Your task to perform on an android device: toggle location history Image 0: 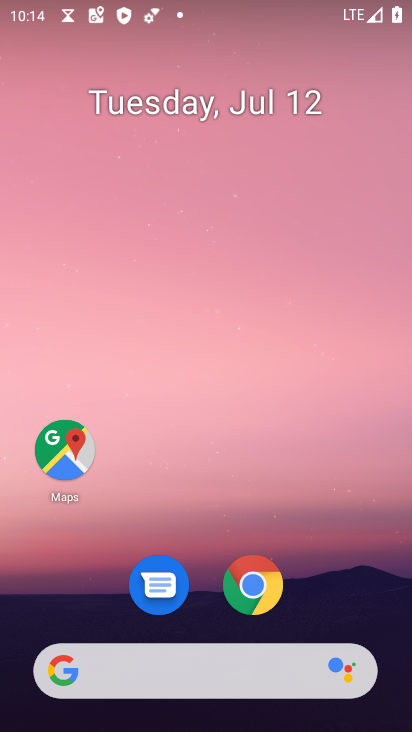
Step 0: click (65, 461)
Your task to perform on an android device: toggle location history Image 1: 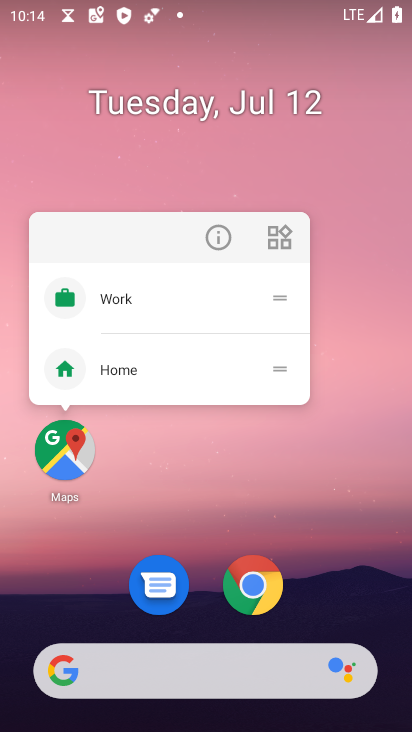
Step 1: click (65, 462)
Your task to perform on an android device: toggle location history Image 2: 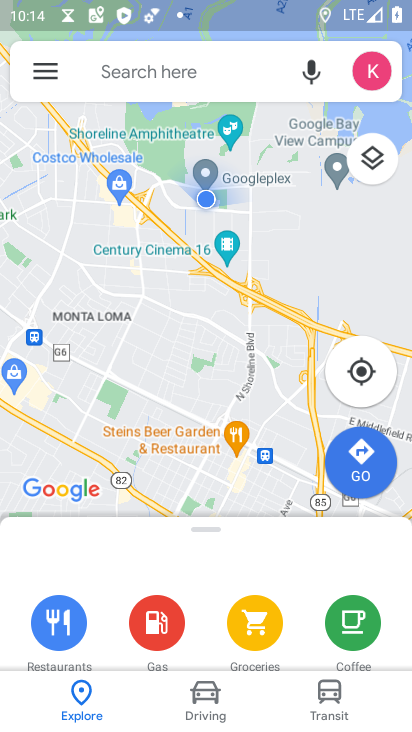
Step 2: click (49, 75)
Your task to perform on an android device: toggle location history Image 3: 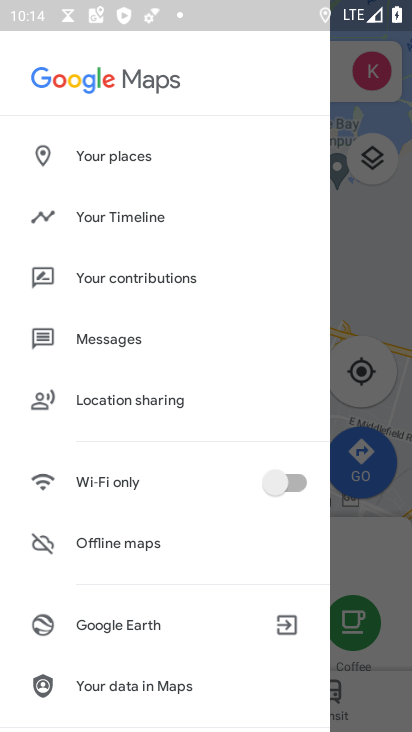
Step 3: click (153, 218)
Your task to perform on an android device: toggle location history Image 4: 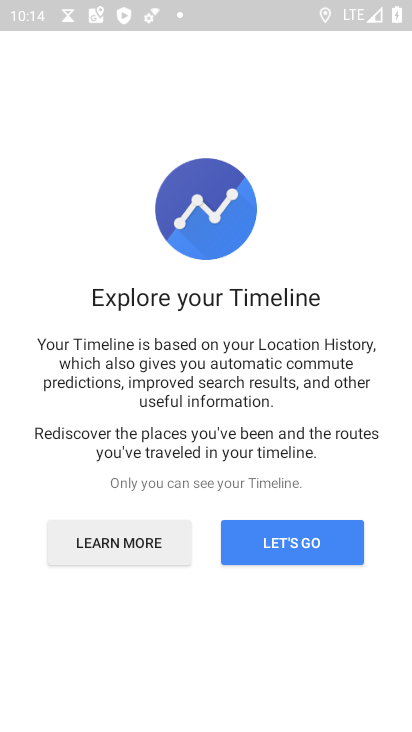
Step 4: click (273, 544)
Your task to perform on an android device: toggle location history Image 5: 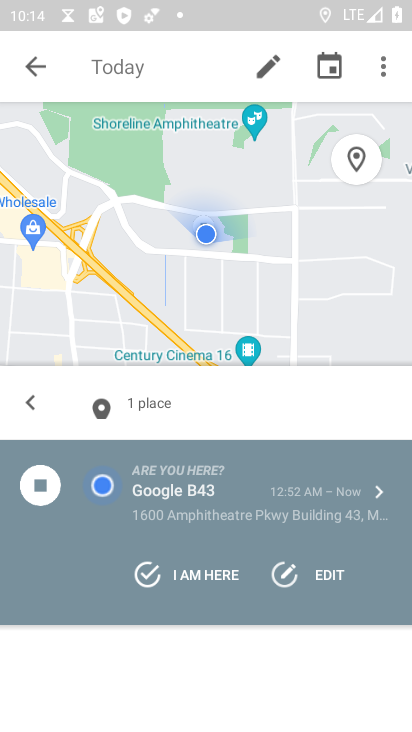
Step 5: click (384, 63)
Your task to perform on an android device: toggle location history Image 6: 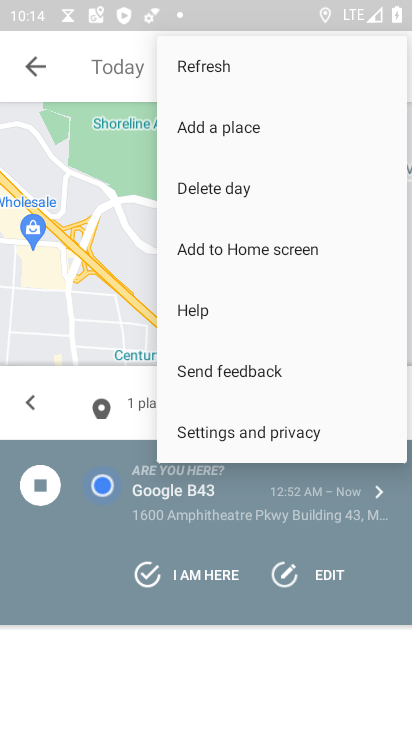
Step 6: click (246, 427)
Your task to perform on an android device: toggle location history Image 7: 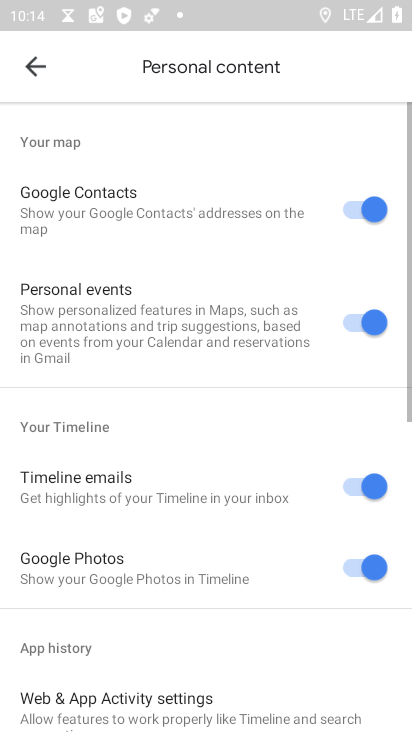
Step 7: drag from (199, 599) to (279, 250)
Your task to perform on an android device: toggle location history Image 8: 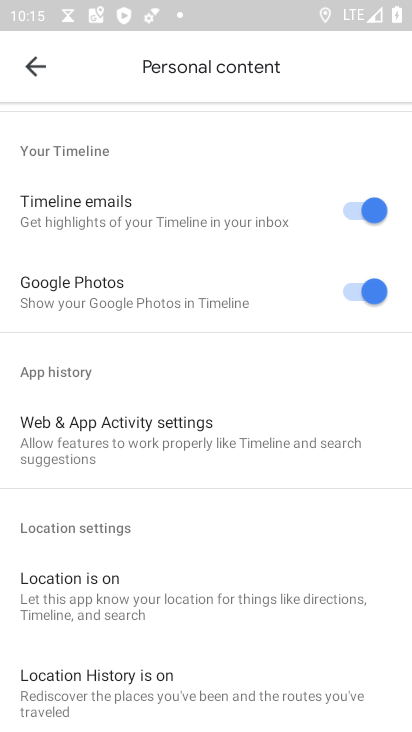
Step 8: drag from (186, 575) to (294, 268)
Your task to perform on an android device: toggle location history Image 9: 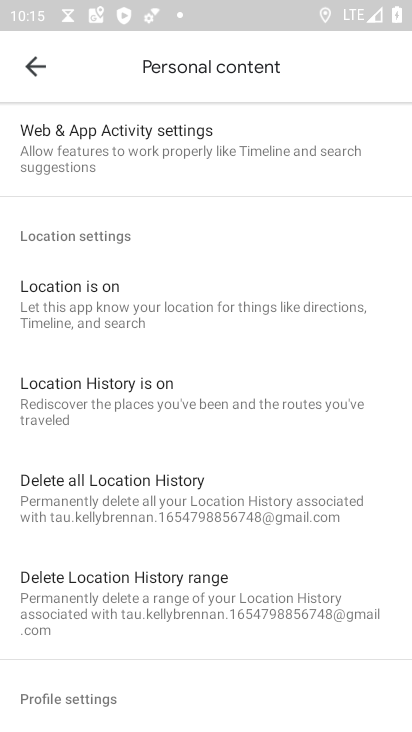
Step 9: click (186, 395)
Your task to perform on an android device: toggle location history Image 10: 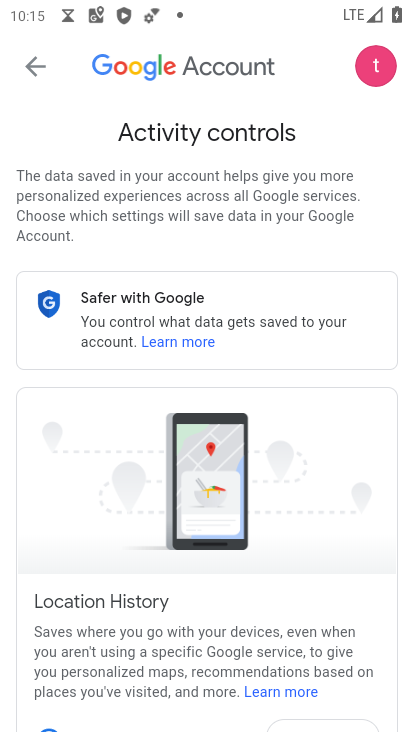
Step 10: drag from (250, 634) to (383, 74)
Your task to perform on an android device: toggle location history Image 11: 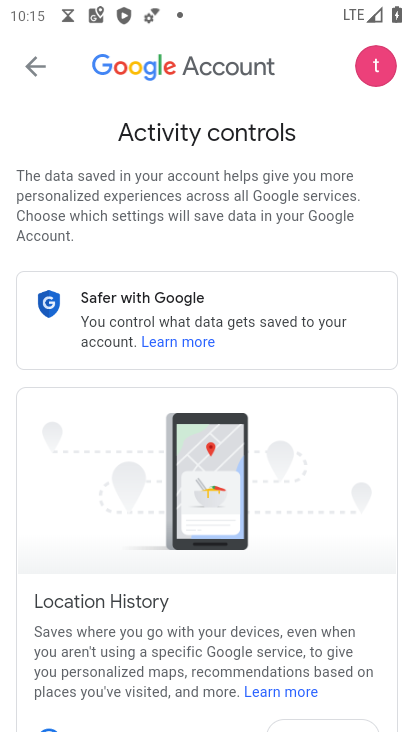
Step 11: drag from (224, 437) to (350, 102)
Your task to perform on an android device: toggle location history Image 12: 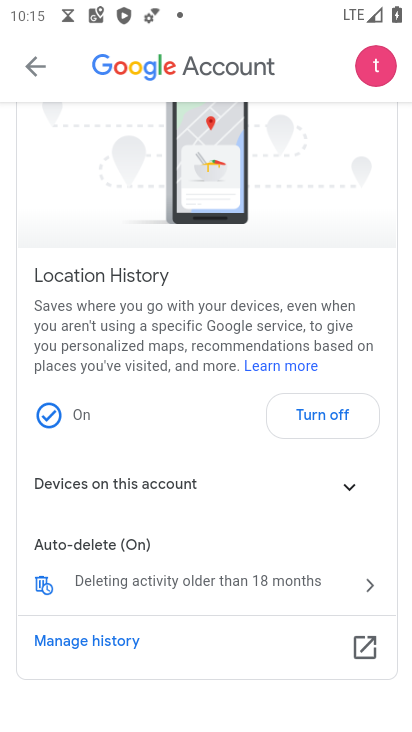
Step 12: click (327, 417)
Your task to perform on an android device: toggle location history Image 13: 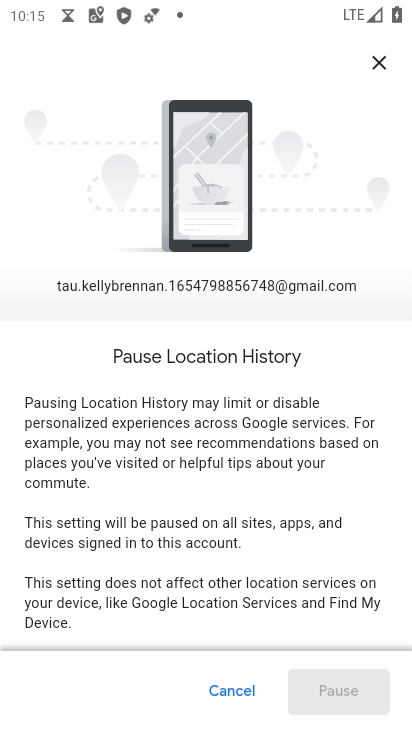
Step 13: drag from (292, 592) to (354, 282)
Your task to perform on an android device: toggle location history Image 14: 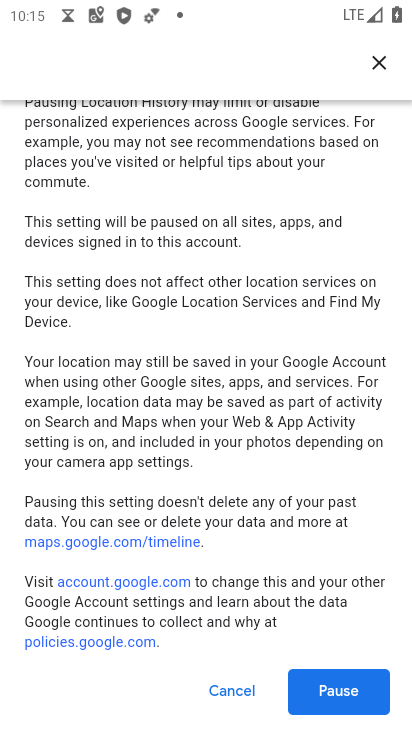
Step 14: click (347, 701)
Your task to perform on an android device: toggle location history Image 15: 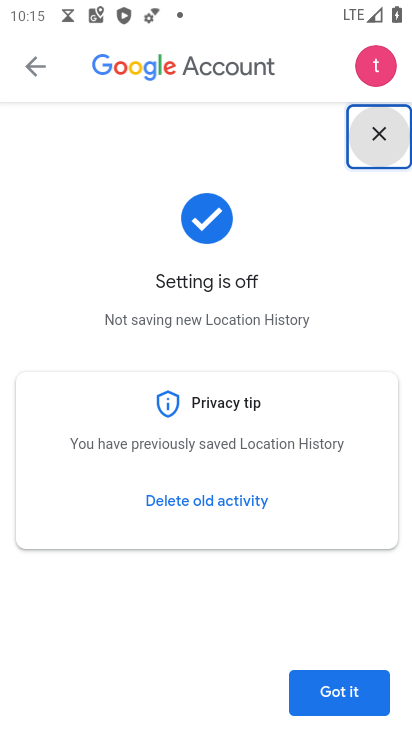
Step 15: click (339, 696)
Your task to perform on an android device: toggle location history Image 16: 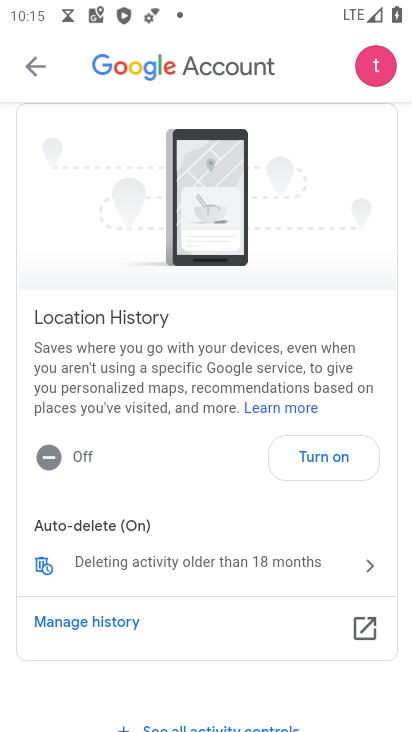
Step 16: task complete